Your task to perform on an android device: turn on notifications settings in the gmail app Image 0: 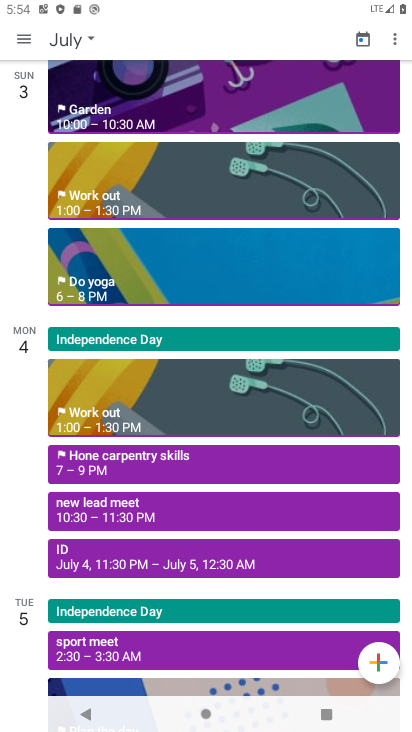
Step 0: press home button
Your task to perform on an android device: turn on notifications settings in the gmail app Image 1: 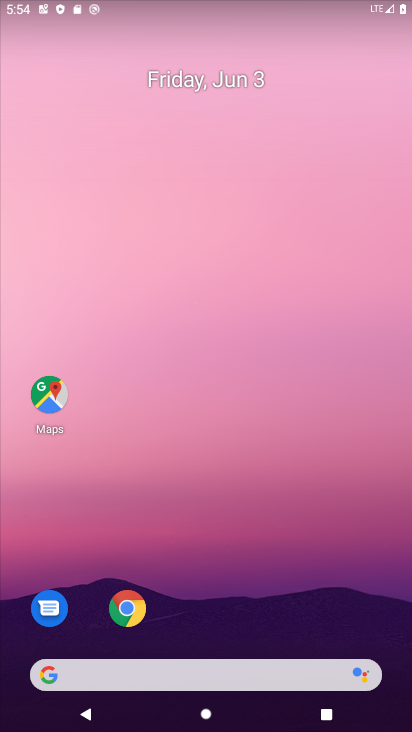
Step 1: drag from (256, 622) to (251, 220)
Your task to perform on an android device: turn on notifications settings in the gmail app Image 2: 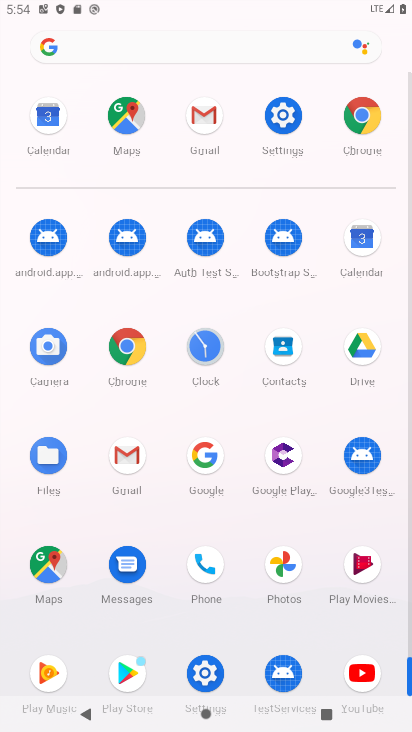
Step 2: click (204, 113)
Your task to perform on an android device: turn on notifications settings in the gmail app Image 3: 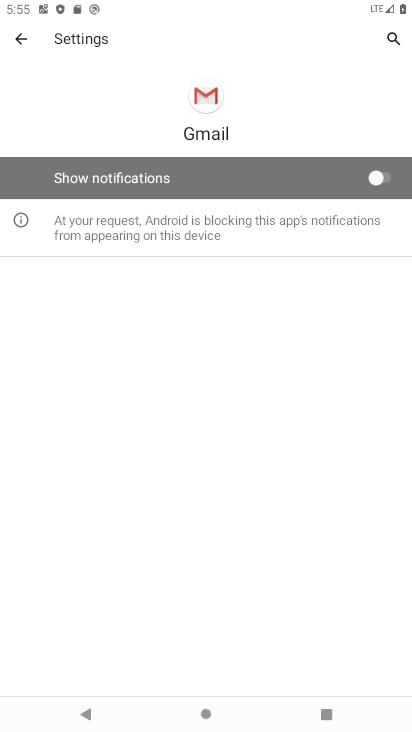
Step 3: click (387, 169)
Your task to perform on an android device: turn on notifications settings in the gmail app Image 4: 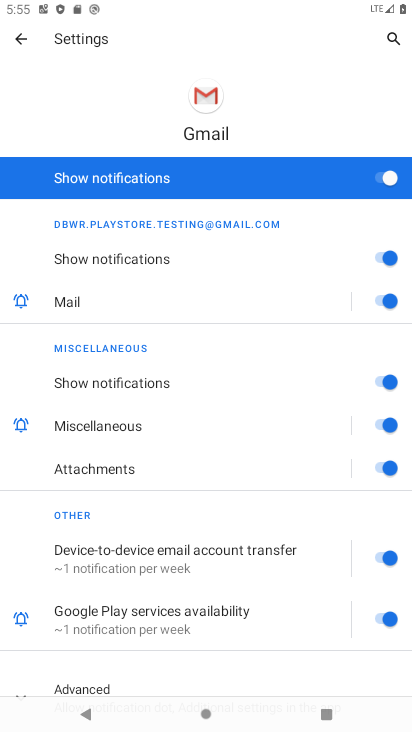
Step 4: task complete